Your task to perform on an android device: Open Google Maps and go to "Timeline" Image 0: 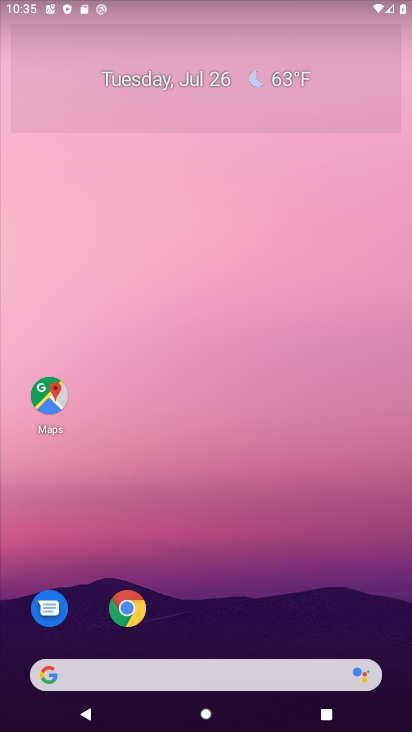
Step 0: press home button
Your task to perform on an android device: Open Google Maps and go to "Timeline" Image 1: 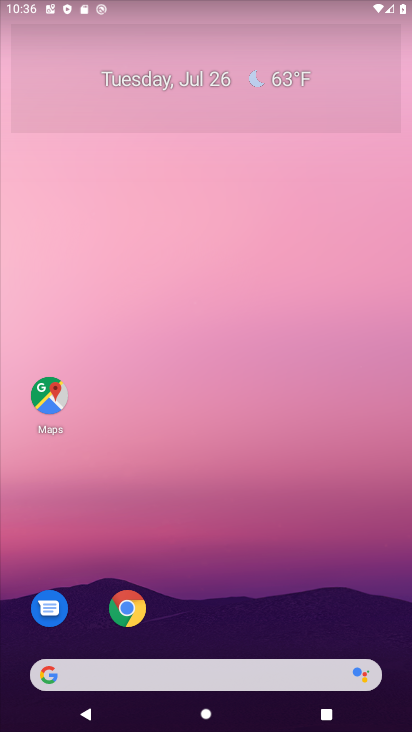
Step 1: drag from (244, 618) to (255, 91)
Your task to perform on an android device: Open Google Maps and go to "Timeline" Image 2: 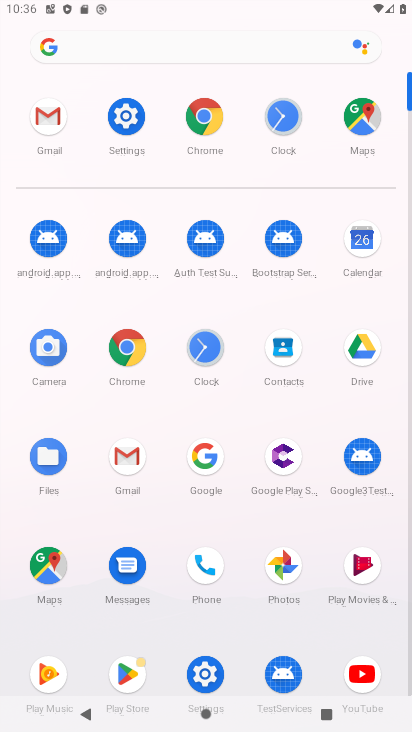
Step 2: click (364, 115)
Your task to perform on an android device: Open Google Maps and go to "Timeline" Image 3: 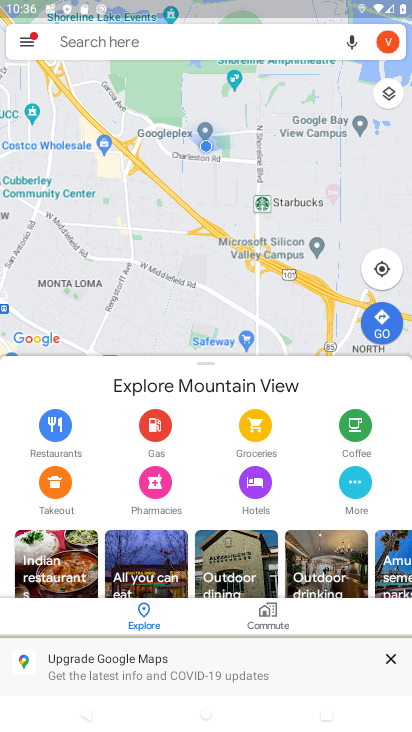
Step 3: click (24, 37)
Your task to perform on an android device: Open Google Maps and go to "Timeline" Image 4: 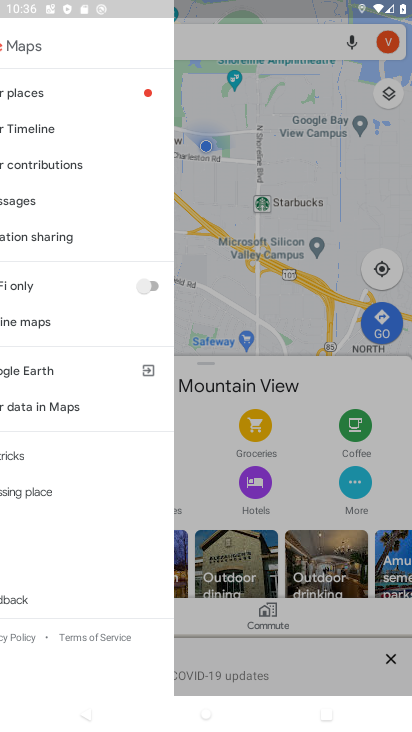
Step 4: click (30, 48)
Your task to perform on an android device: Open Google Maps and go to "Timeline" Image 5: 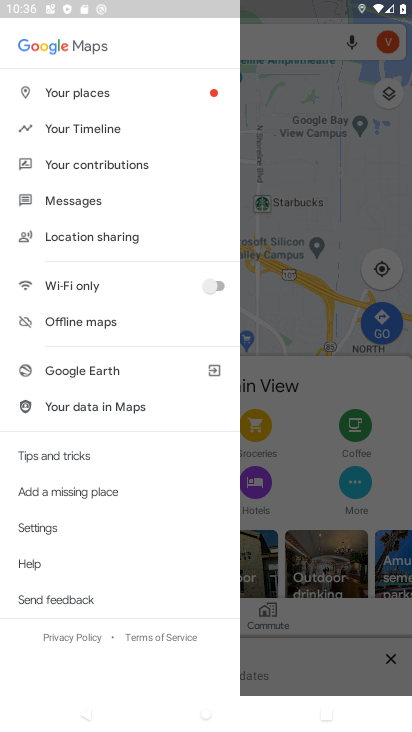
Step 5: click (99, 131)
Your task to perform on an android device: Open Google Maps and go to "Timeline" Image 6: 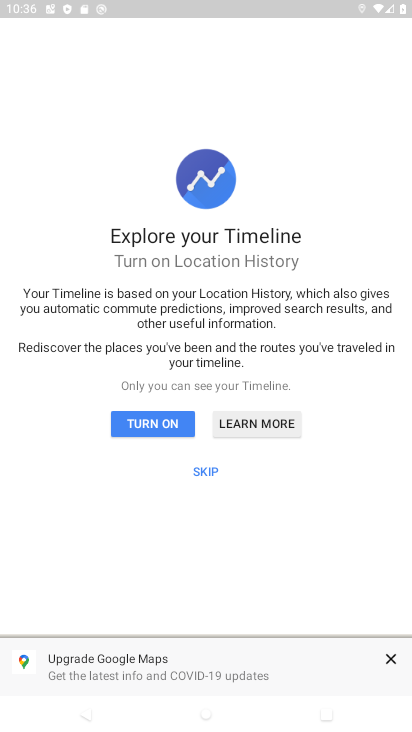
Step 6: click (160, 423)
Your task to perform on an android device: Open Google Maps and go to "Timeline" Image 7: 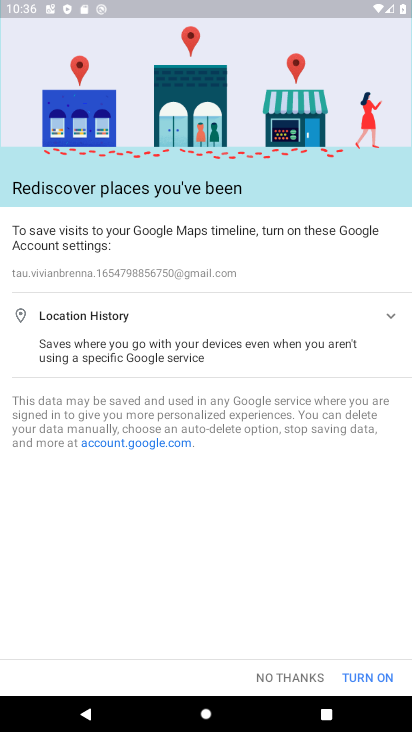
Step 7: click (367, 678)
Your task to perform on an android device: Open Google Maps and go to "Timeline" Image 8: 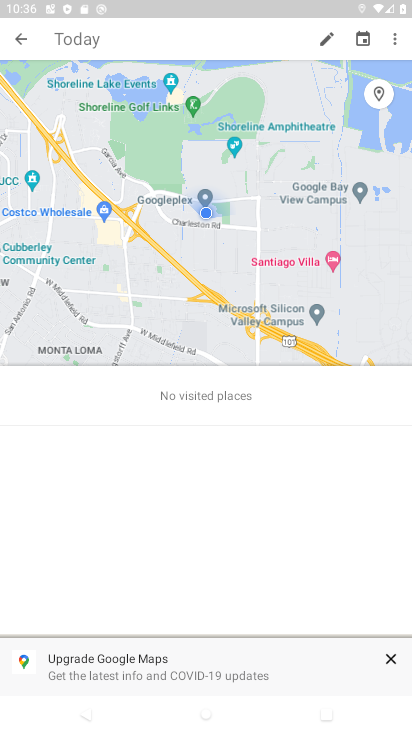
Step 8: task complete